Your task to perform on an android device: check out phone information Image 0: 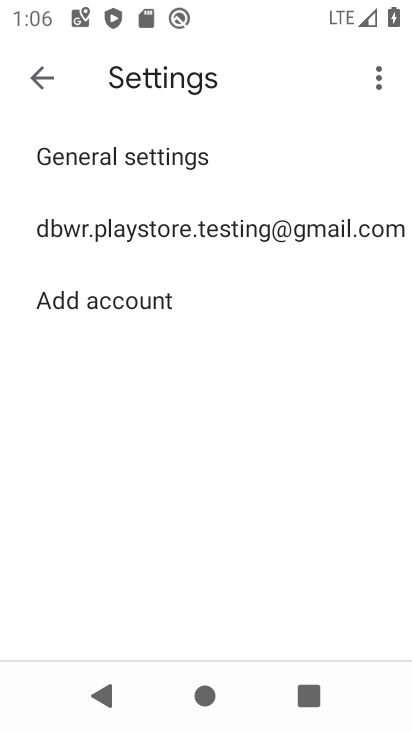
Step 0: press back button
Your task to perform on an android device: check out phone information Image 1: 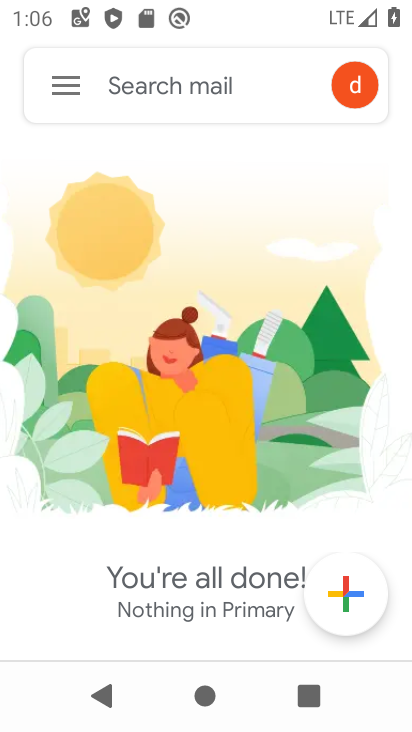
Step 1: press back button
Your task to perform on an android device: check out phone information Image 2: 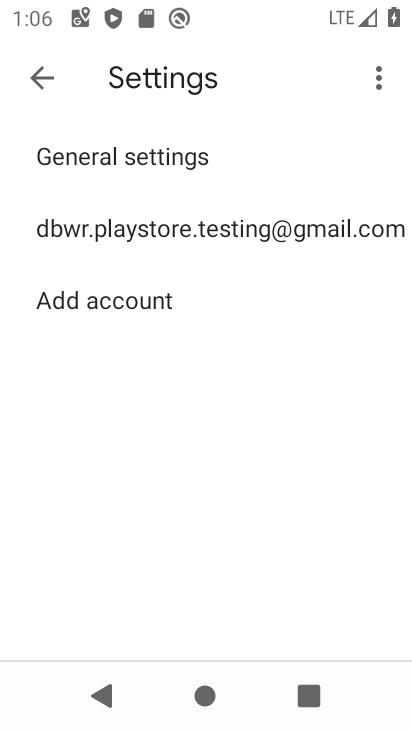
Step 2: press back button
Your task to perform on an android device: check out phone information Image 3: 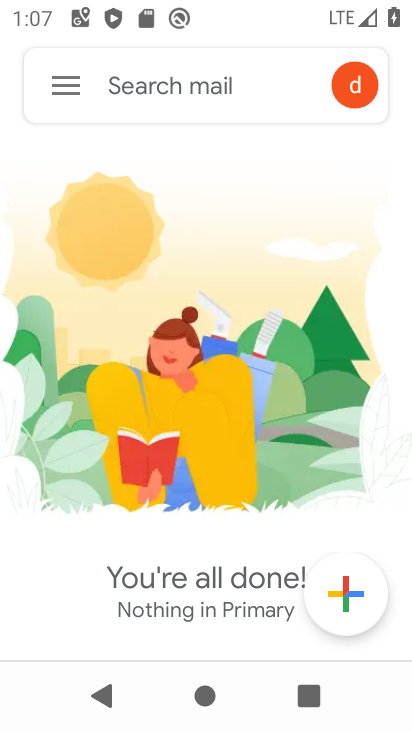
Step 3: press back button
Your task to perform on an android device: check out phone information Image 4: 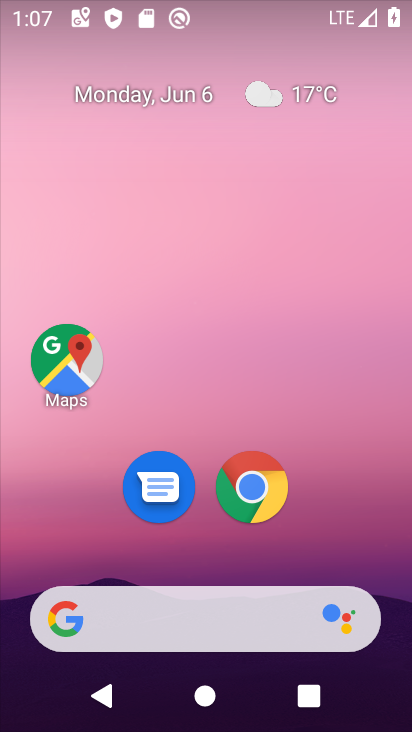
Step 4: drag from (212, 552) to (235, 24)
Your task to perform on an android device: check out phone information Image 5: 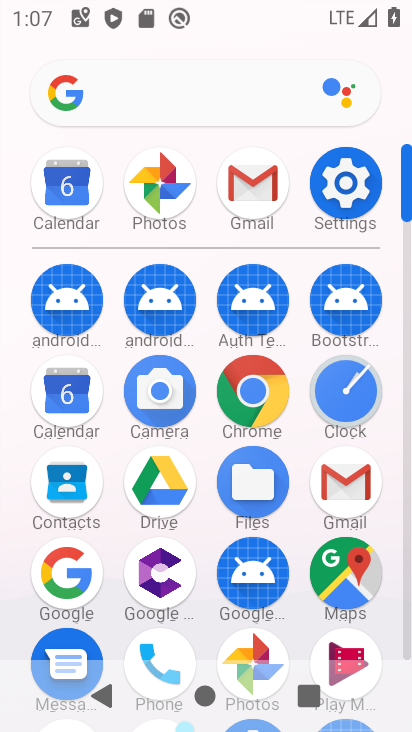
Step 5: click (358, 179)
Your task to perform on an android device: check out phone information Image 6: 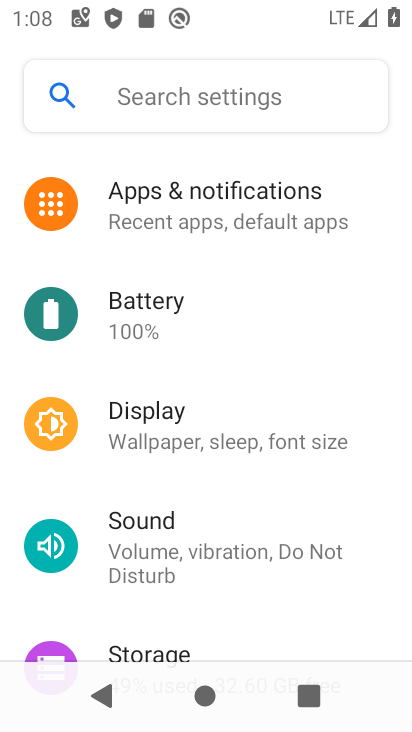
Step 6: drag from (151, 566) to (216, 130)
Your task to perform on an android device: check out phone information Image 7: 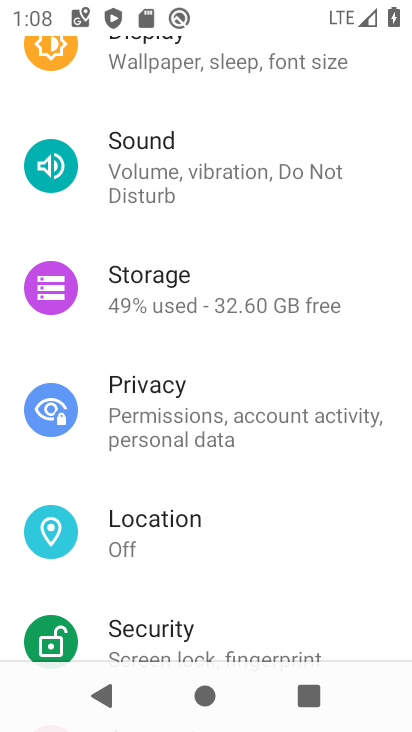
Step 7: drag from (184, 563) to (253, 71)
Your task to perform on an android device: check out phone information Image 8: 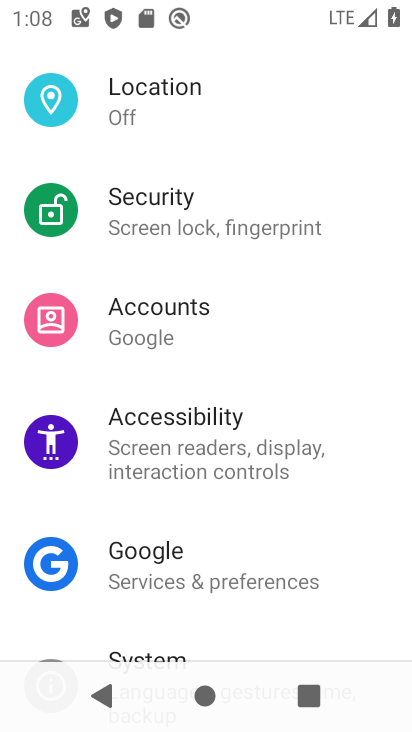
Step 8: drag from (217, 576) to (270, 33)
Your task to perform on an android device: check out phone information Image 9: 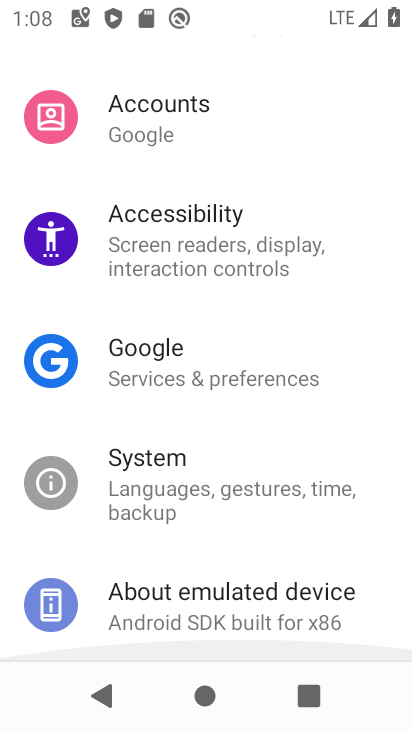
Step 9: drag from (247, 602) to (298, 65)
Your task to perform on an android device: check out phone information Image 10: 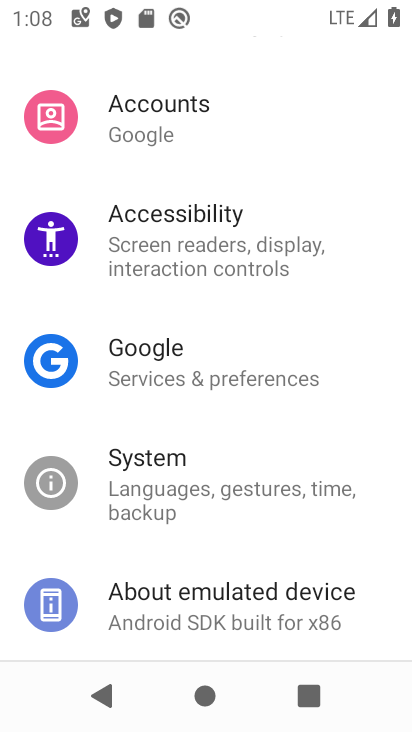
Step 10: click (175, 620)
Your task to perform on an android device: check out phone information Image 11: 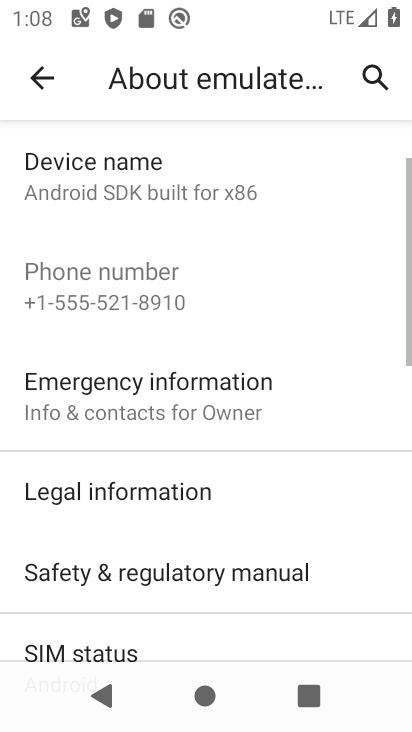
Step 11: task complete